Your task to perform on an android device: turn off translation in the chrome app Image 0: 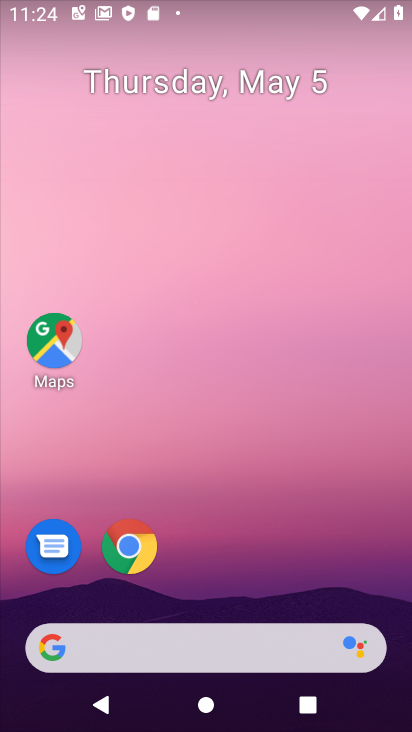
Step 0: click (125, 547)
Your task to perform on an android device: turn off translation in the chrome app Image 1: 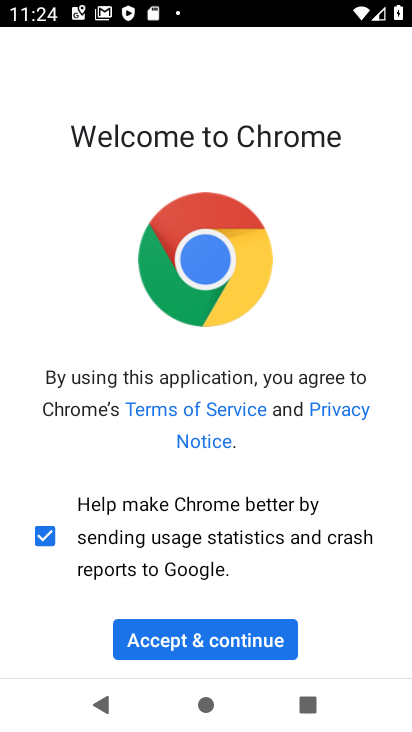
Step 1: click (242, 633)
Your task to perform on an android device: turn off translation in the chrome app Image 2: 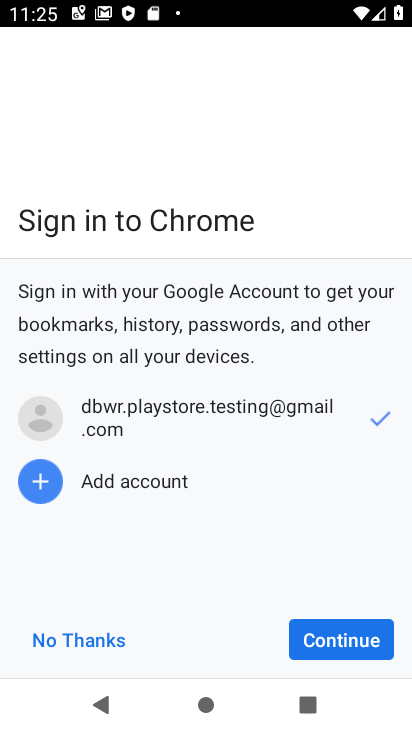
Step 2: click (328, 633)
Your task to perform on an android device: turn off translation in the chrome app Image 3: 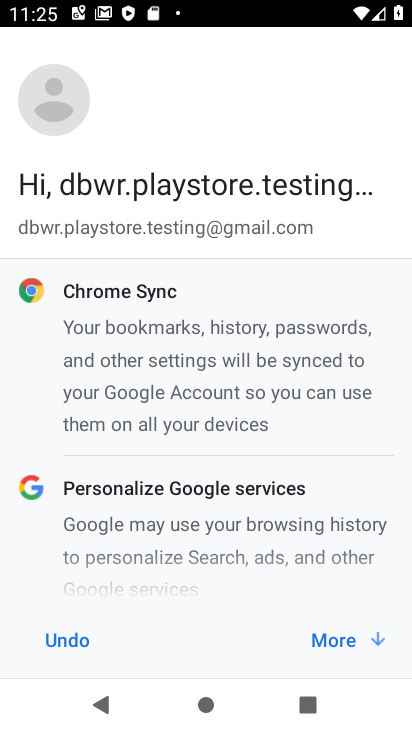
Step 3: click (347, 644)
Your task to perform on an android device: turn off translation in the chrome app Image 4: 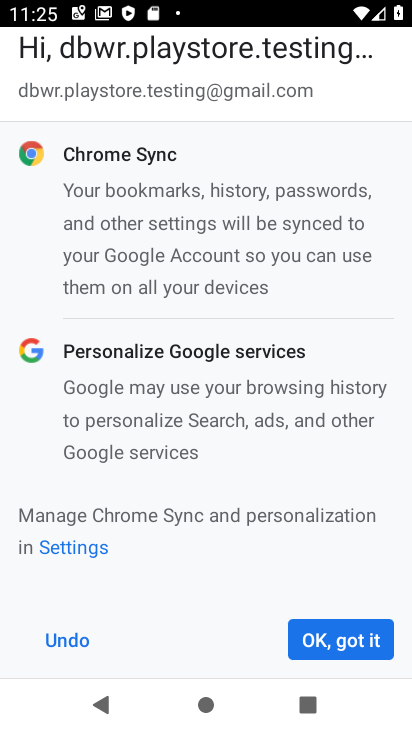
Step 4: click (347, 641)
Your task to perform on an android device: turn off translation in the chrome app Image 5: 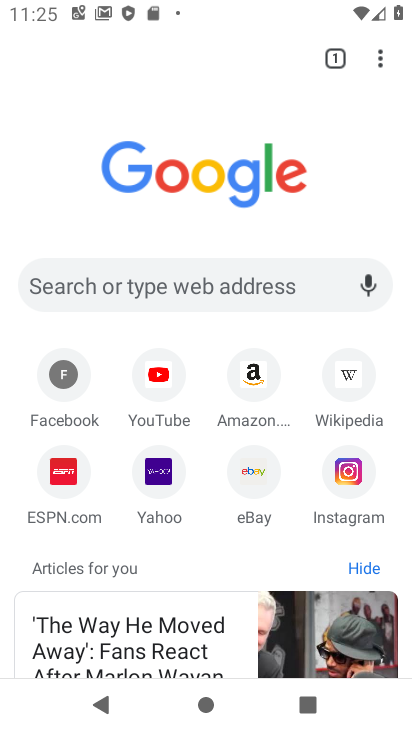
Step 5: click (384, 57)
Your task to perform on an android device: turn off translation in the chrome app Image 6: 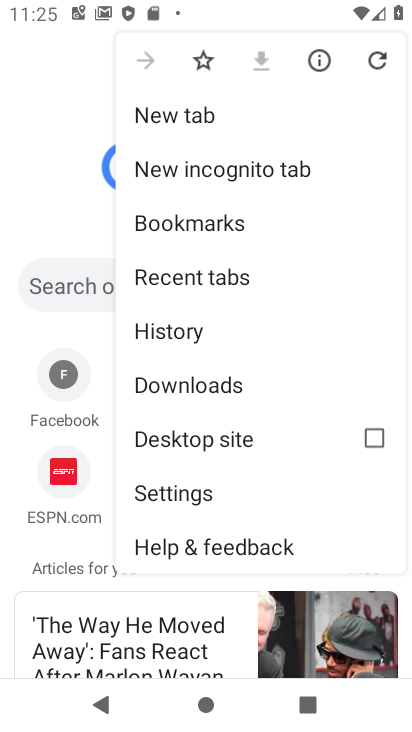
Step 6: click (173, 484)
Your task to perform on an android device: turn off translation in the chrome app Image 7: 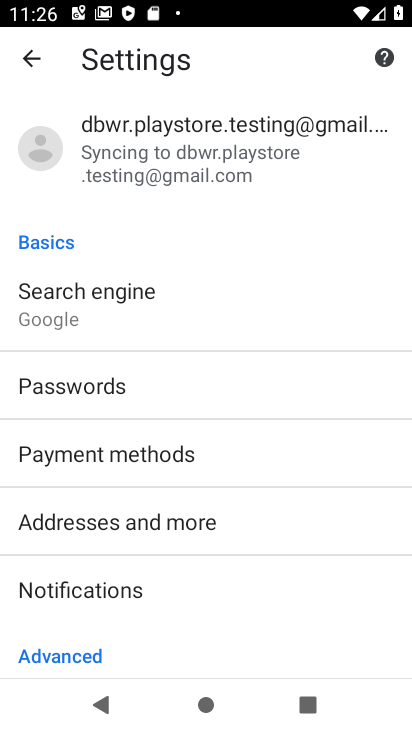
Step 7: drag from (186, 491) to (192, 222)
Your task to perform on an android device: turn off translation in the chrome app Image 8: 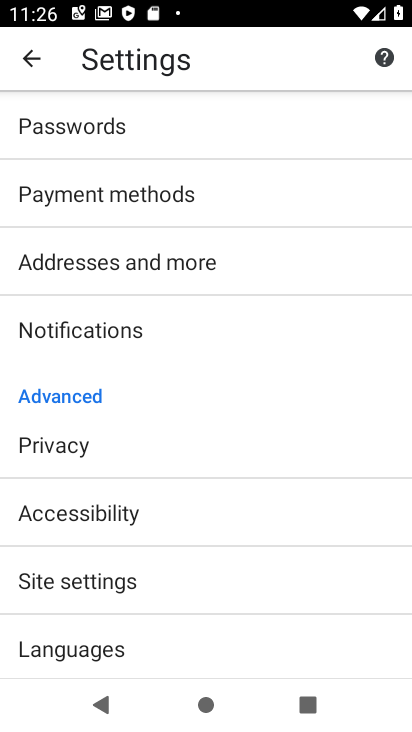
Step 8: click (144, 642)
Your task to perform on an android device: turn off translation in the chrome app Image 9: 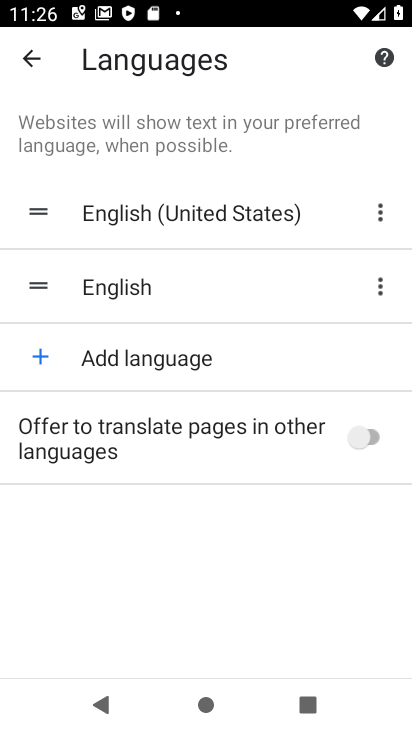
Step 9: task complete